Your task to perform on an android device: Go to Yahoo.com Image 0: 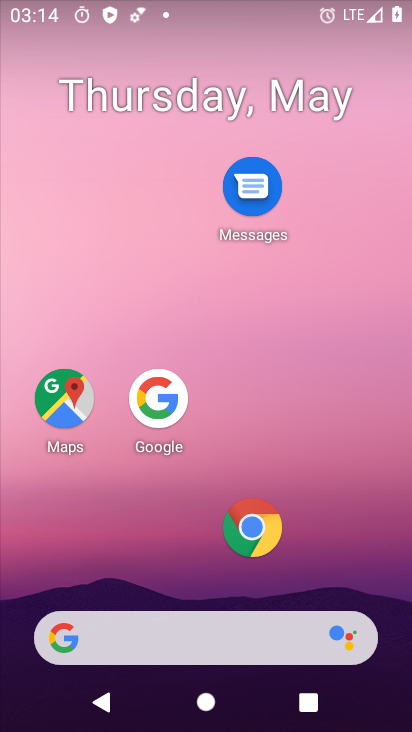
Step 0: drag from (204, 546) to (222, 84)
Your task to perform on an android device: Go to Yahoo.com Image 1: 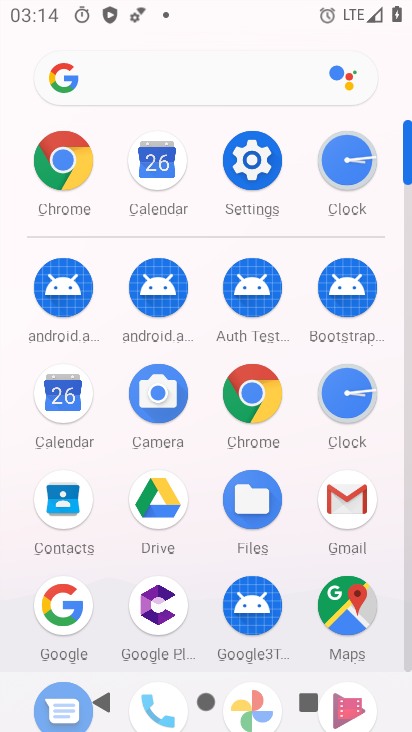
Step 1: click (262, 401)
Your task to perform on an android device: Go to Yahoo.com Image 2: 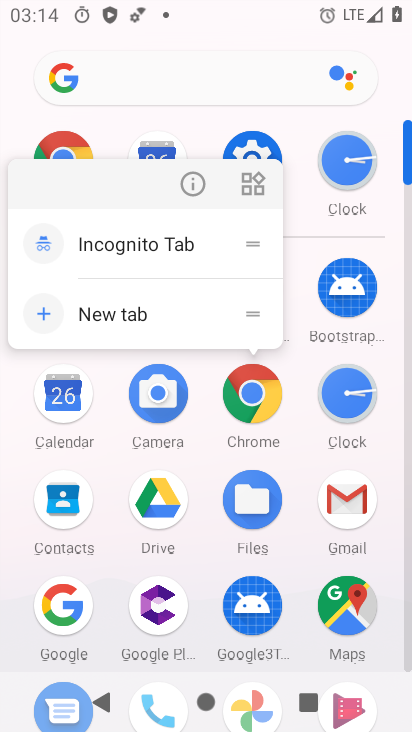
Step 2: click (195, 184)
Your task to perform on an android device: Go to Yahoo.com Image 3: 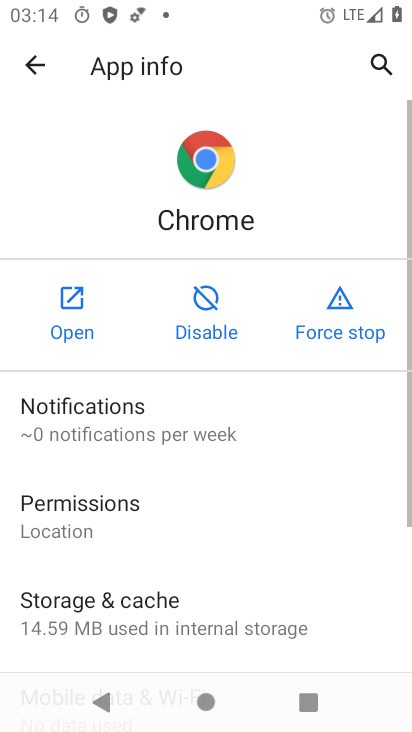
Step 3: click (80, 317)
Your task to perform on an android device: Go to Yahoo.com Image 4: 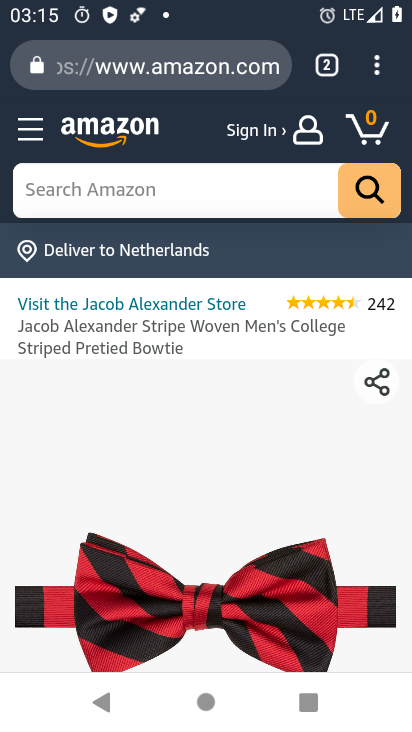
Step 4: click (228, 81)
Your task to perform on an android device: Go to Yahoo.com Image 5: 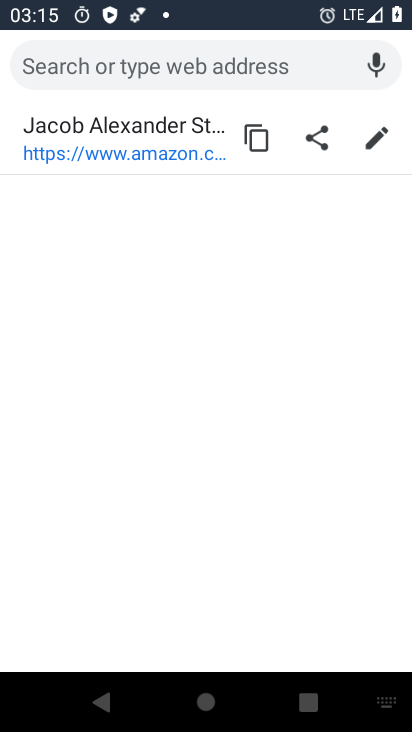
Step 5: type "Yahoo.com"
Your task to perform on an android device: Go to Yahoo.com Image 6: 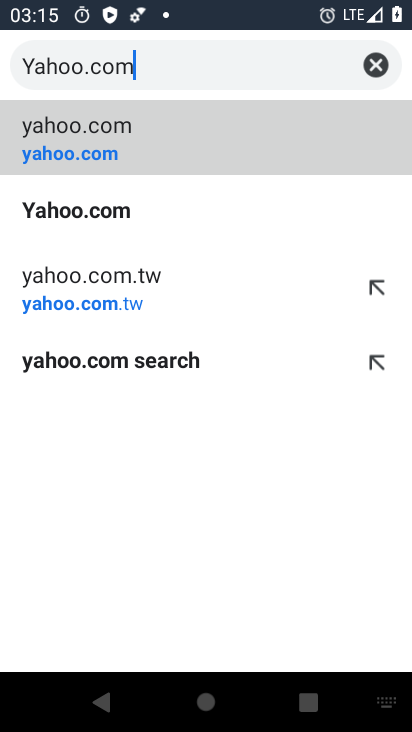
Step 6: type ""
Your task to perform on an android device: Go to Yahoo.com Image 7: 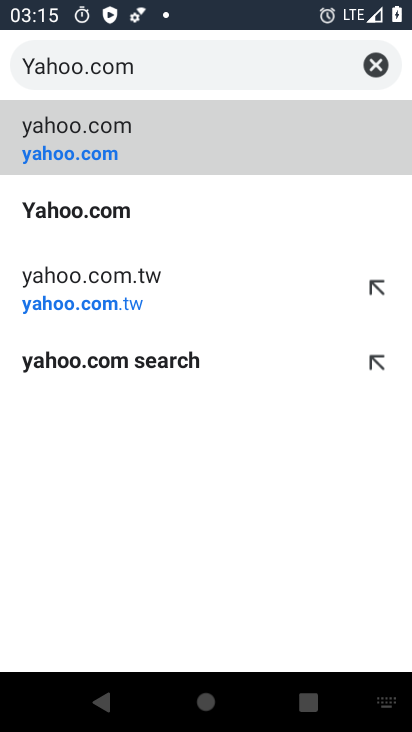
Step 7: click (97, 151)
Your task to perform on an android device: Go to Yahoo.com Image 8: 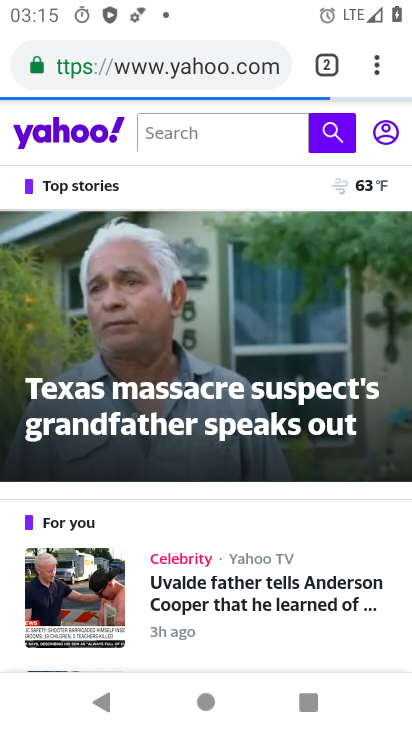
Step 8: task complete